Your task to perform on an android device: open app "Firefox Browser" Image 0: 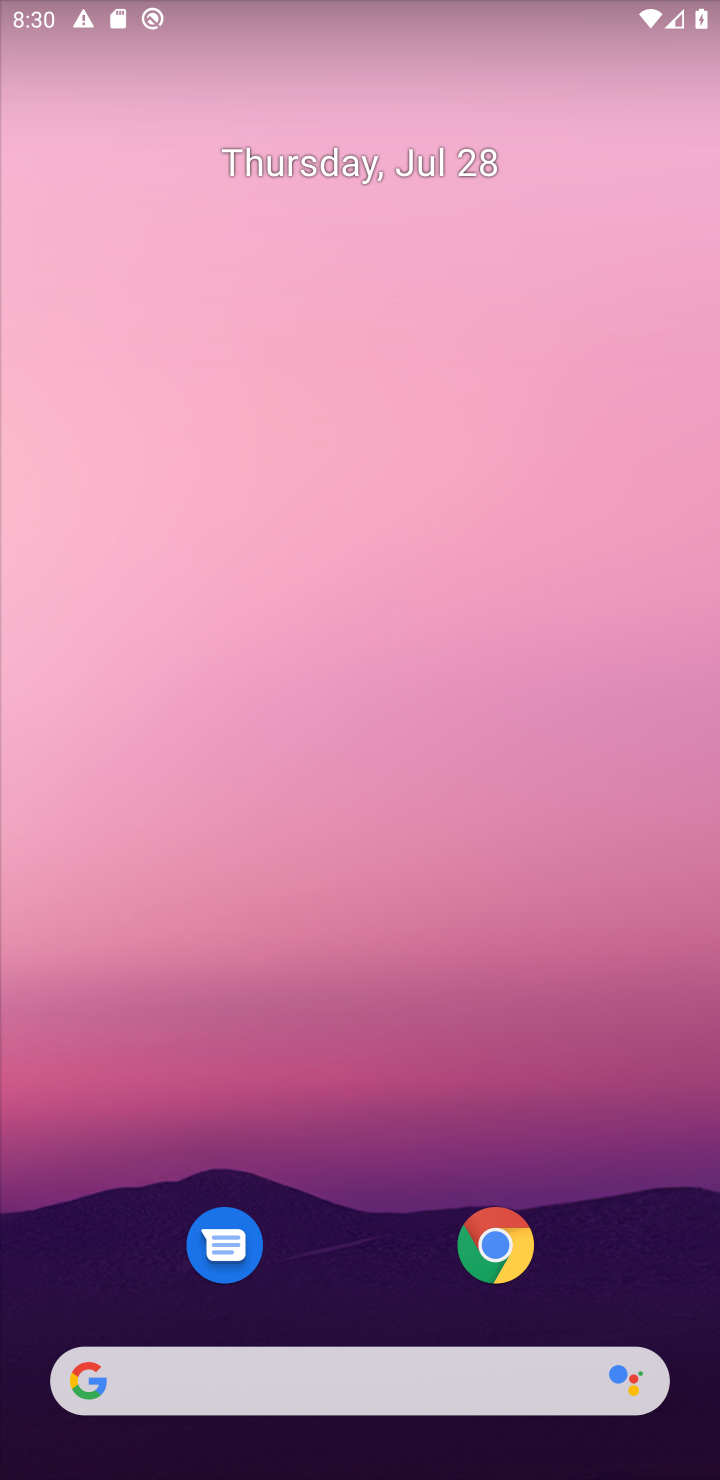
Step 0: drag from (319, 1309) to (451, 361)
Your task to perform on an android device: open app "Firefox Browser" Image 1: 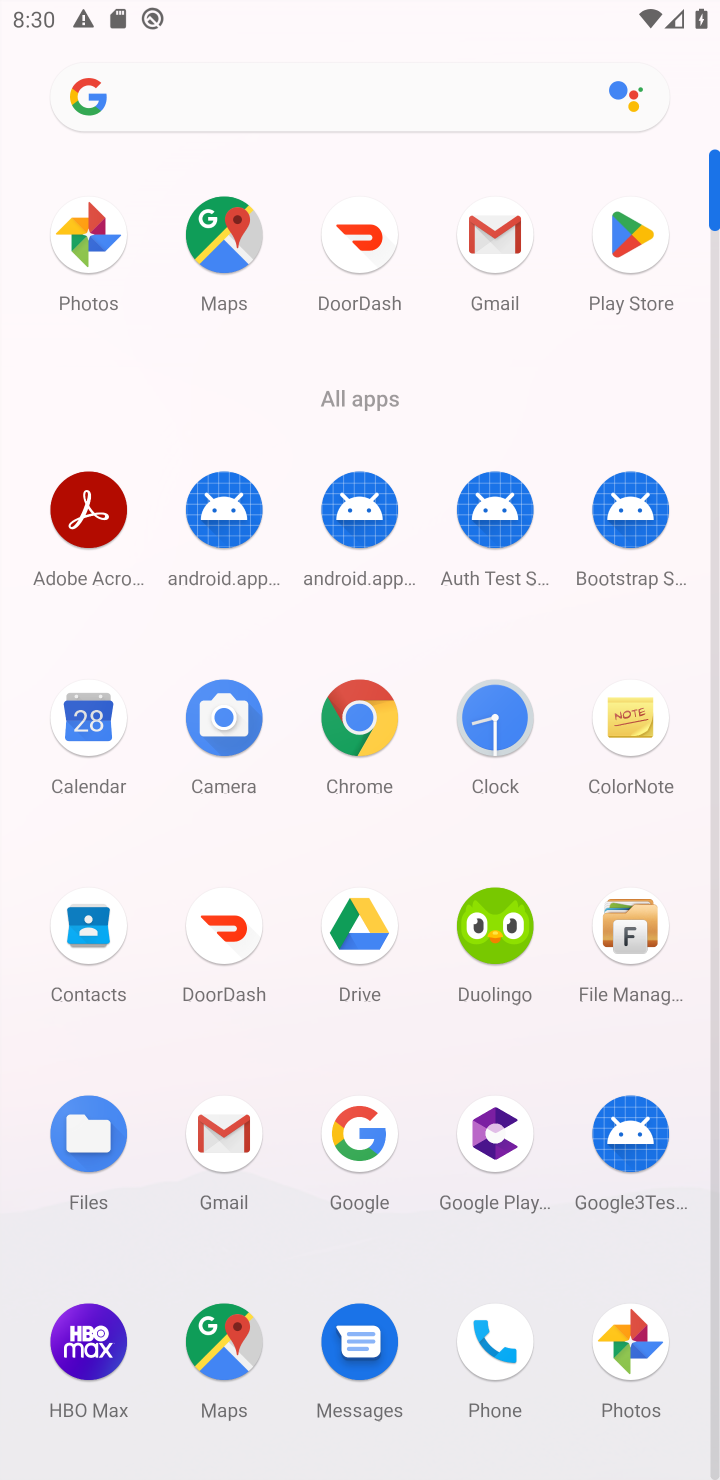
Step 1: click (627, 261)
Your task to perform on an android device: open app "Firefox Browser" Image 2: 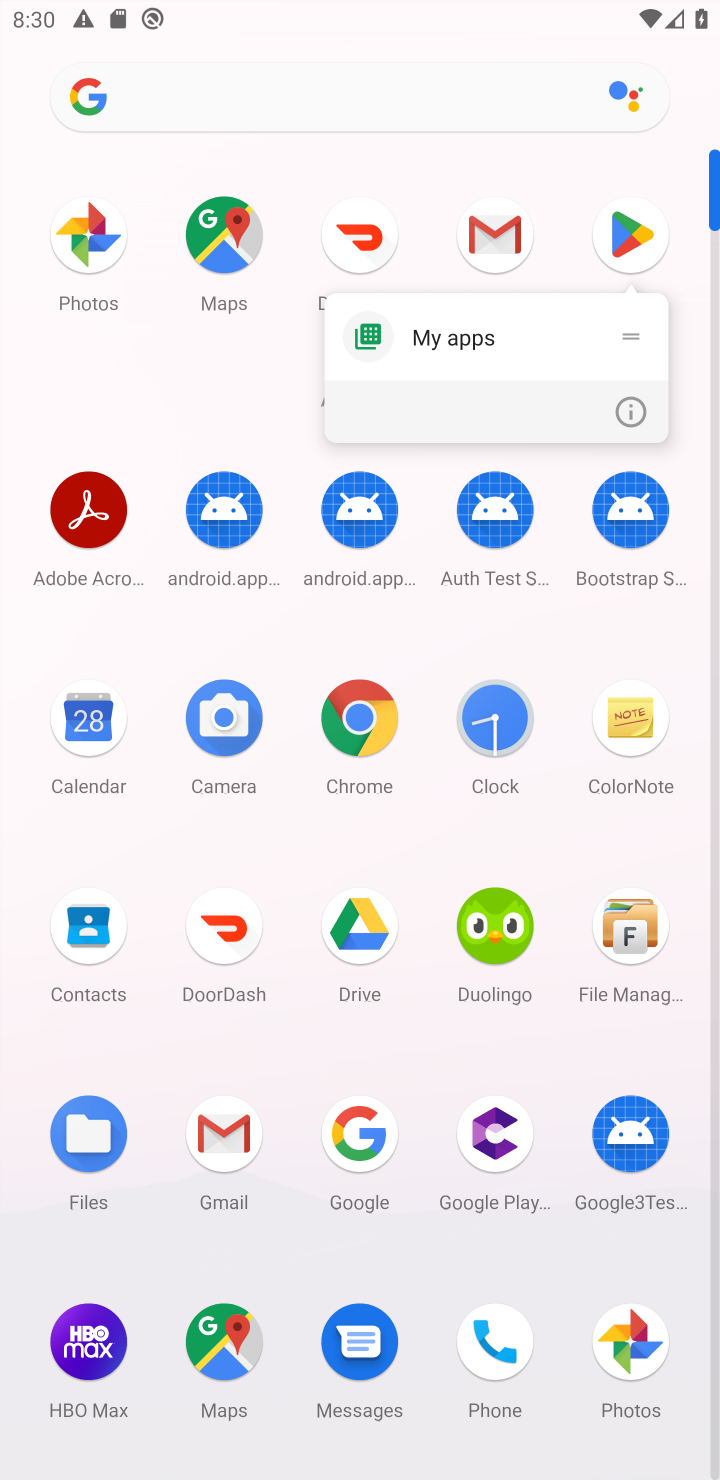
Step 2: click (625, 237)
Your task to perform on an android device: open app "Firefox Browser" Image 3: 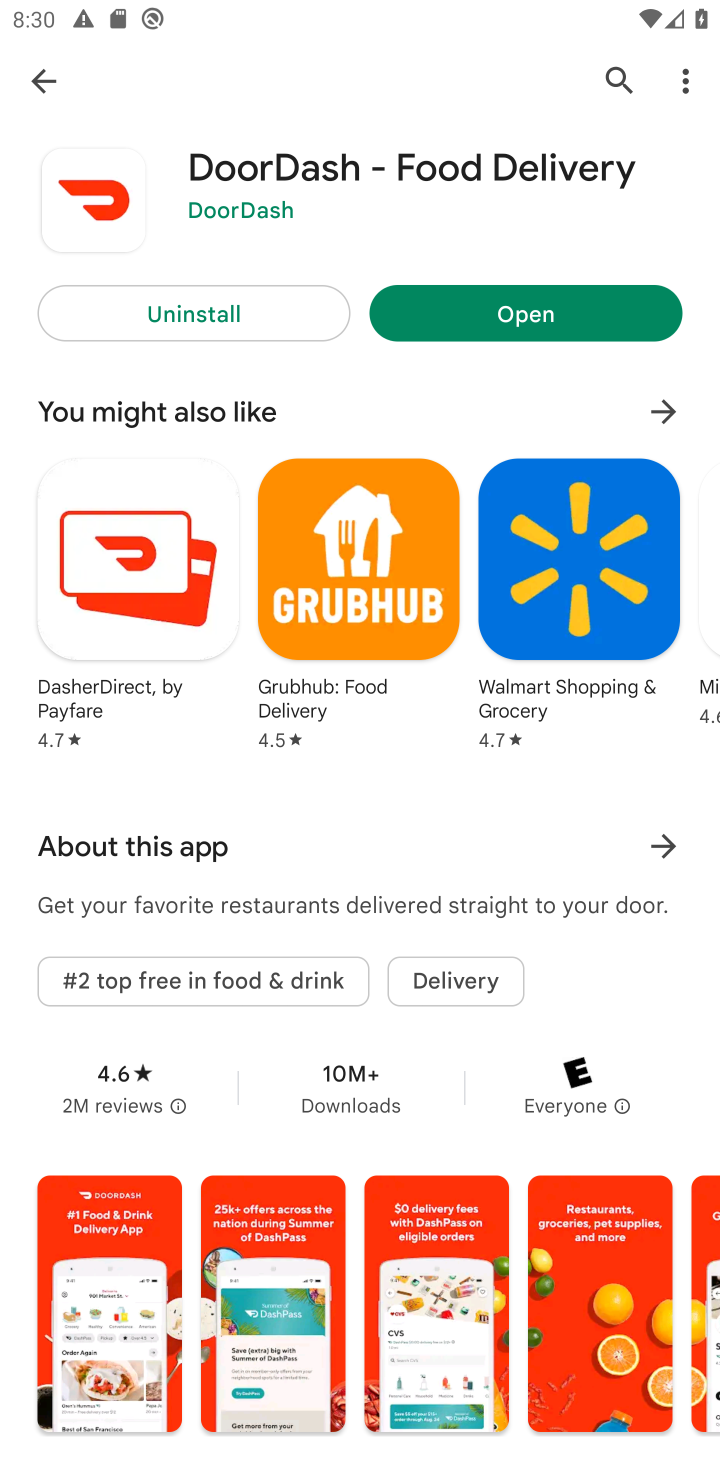
Step 3: click (625, 87)
Your task to perform on an android device: open app "Firefox Browser" Image 4: 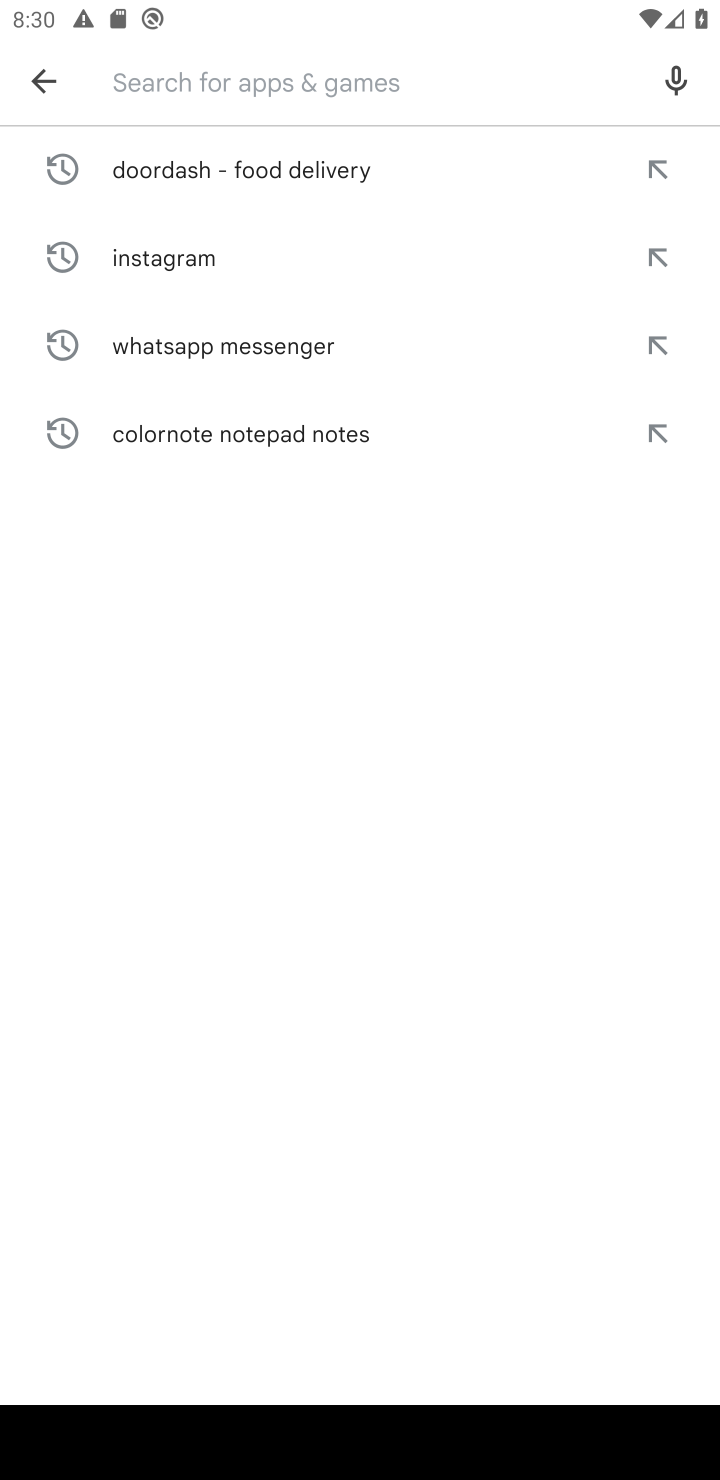
Step 4: type "Firefox Browser"
Your task to perform on an android device: open app "Firefox Browser" Image 5: 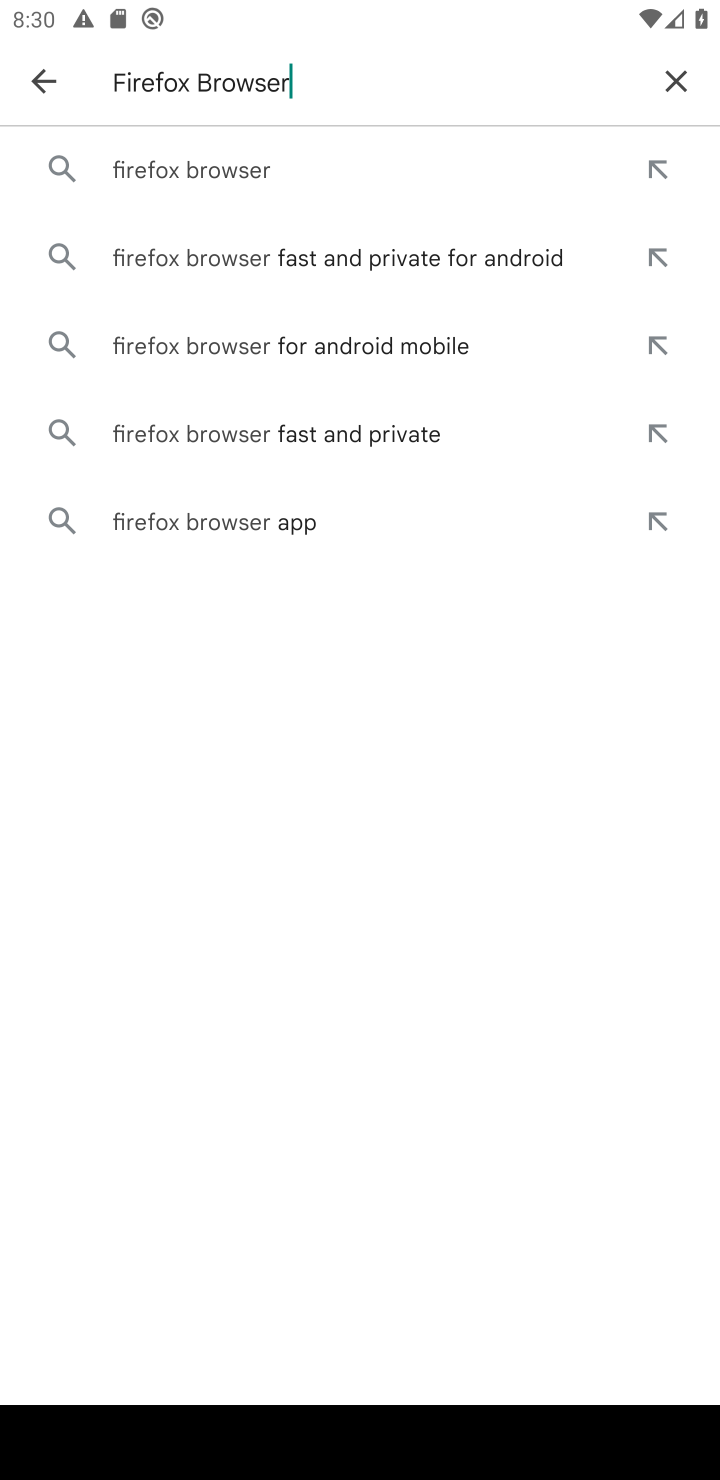
Step 5: click (459, 177)
Your task to perform on an android device: open app "Firefox Browser" Image 6: 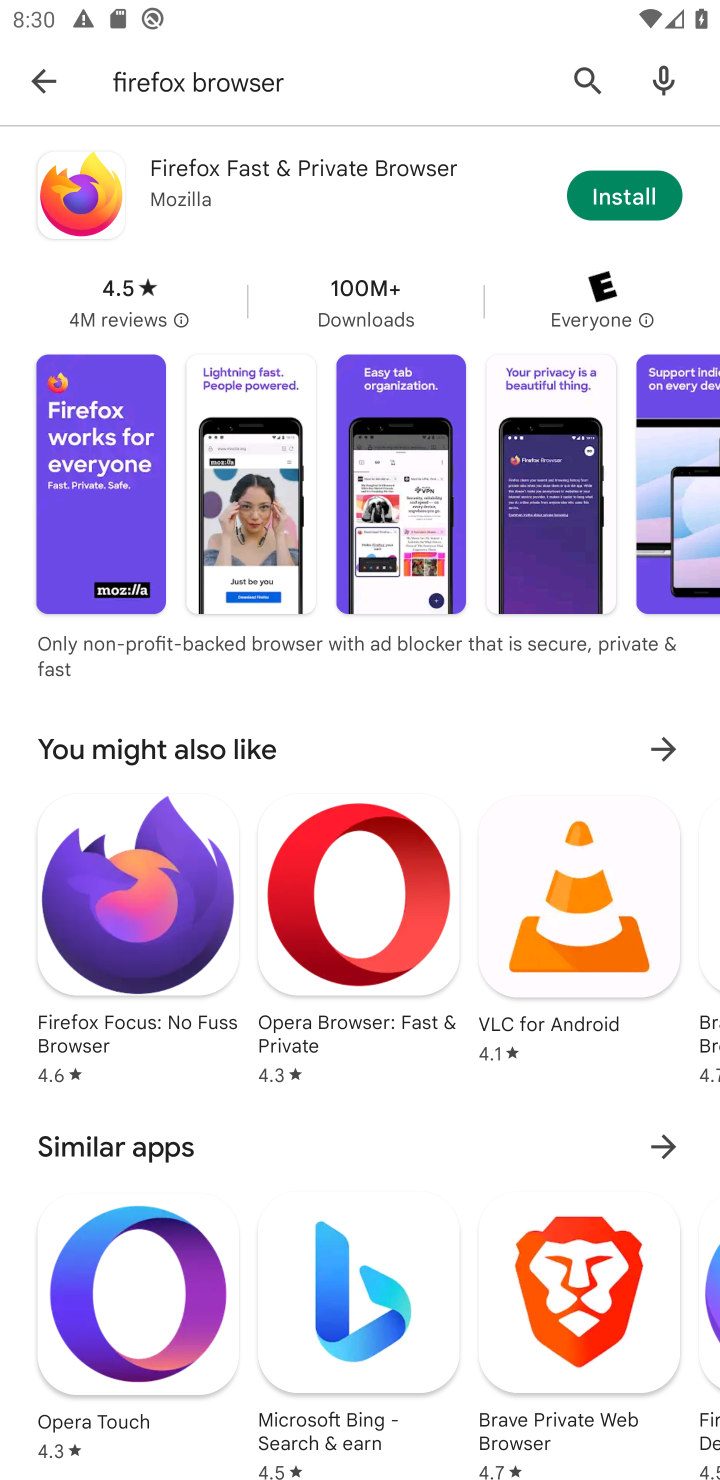
Step 6: click (376, 177)
Your task to perform on an android device: open app "Firefox Browser" Image 7: 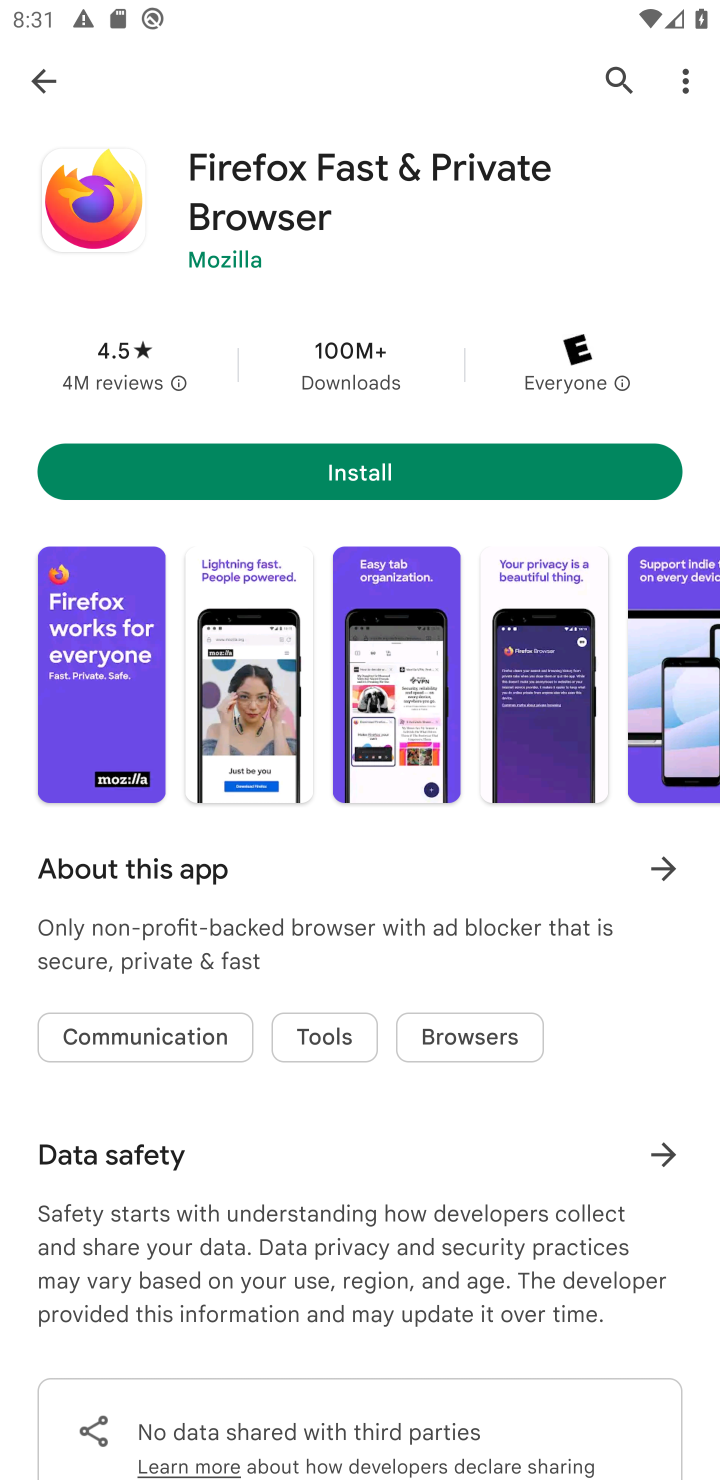
Step 7: task complete